Your task to perform on an android device: turn off translation in the chrome app Image 0: 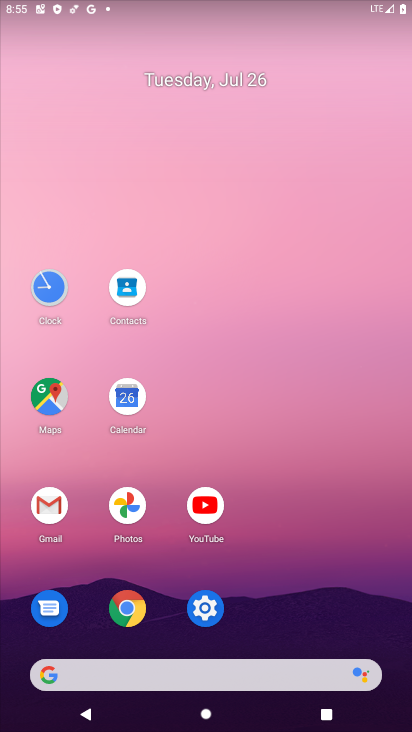
Step 0: click (125, 610)
Your task to perform on an android device: turn off translation in the chrome app Image 1: 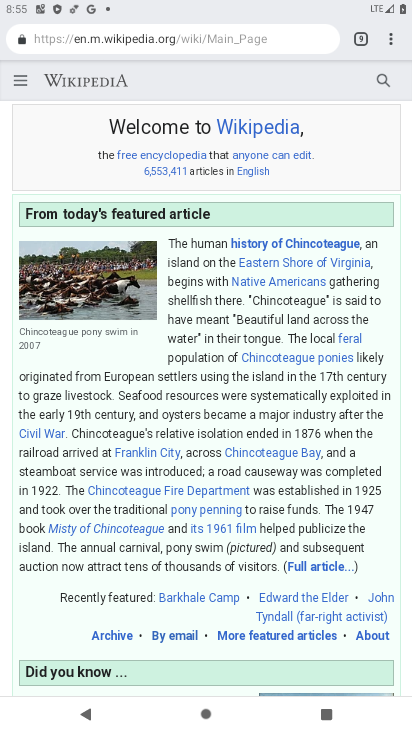
Step 1: click (394, 42)
Your task to perform on an android device: turn off translation in the chrome app Image 2: 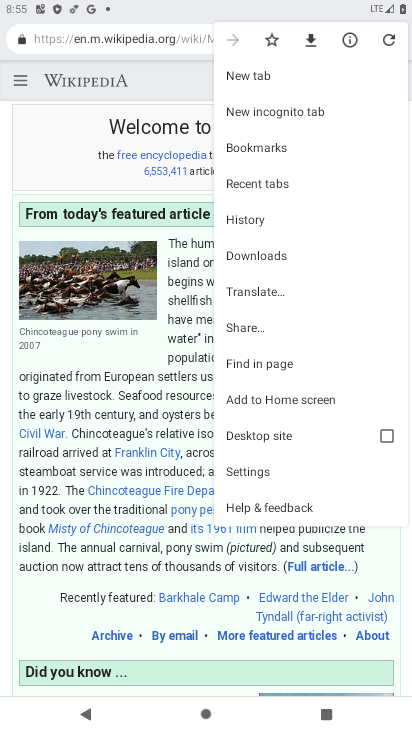
Step 2: click (254, 469)
Your task to perform on an android device: turn off translation in the chrome app Image 3: 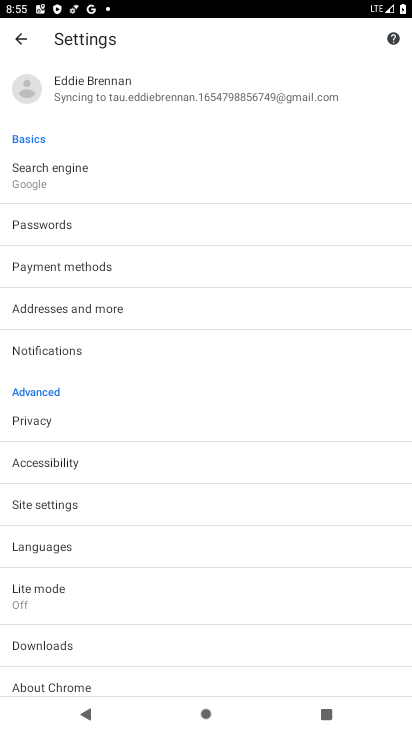
Step 3: click (51, 543)
Your task to perform on an android device: turn off translation in the chrome app Image 4: 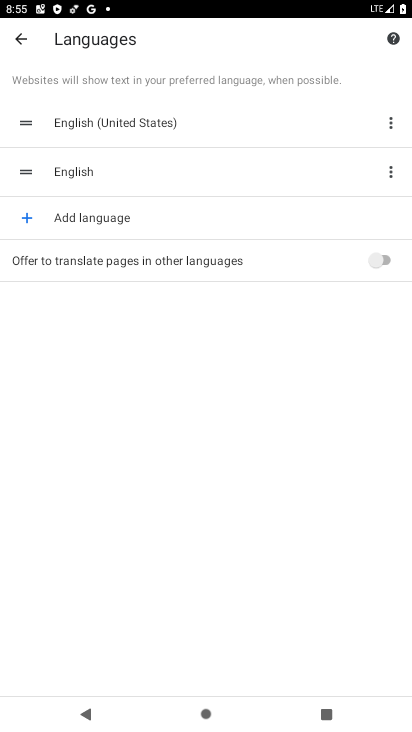
Step 4: task complete